Your task to perform on an android device: turn off improve location accuracy Image 0: 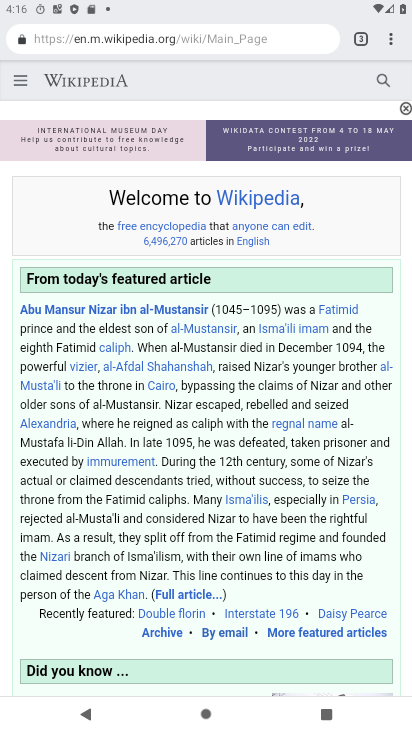
Step 0: press home button
Your task to perform on an android device: turn off improve location accuracy Image 1: 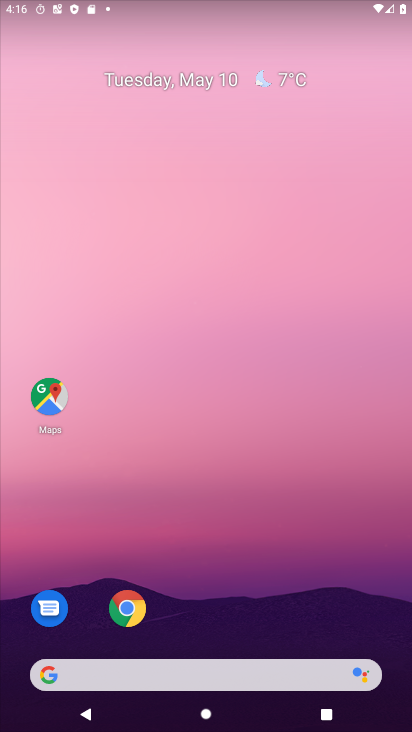
Step 1: drag from (303, 581) to (318, 7)
Your task to perform on an android device: turn off improve location accuracy Image 2: 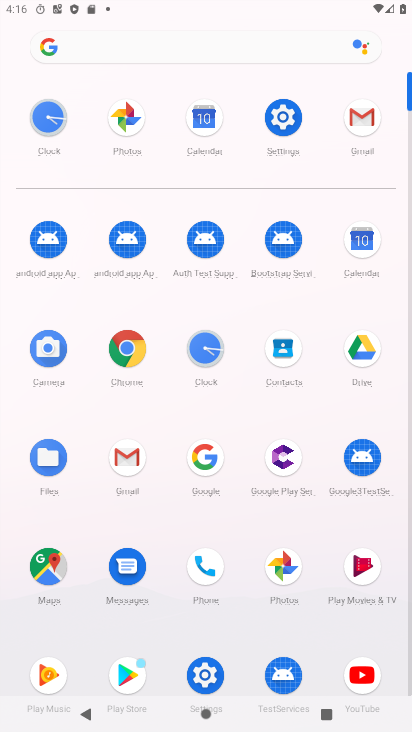
Step 2: click (280, 122)
Your task to perform on an android device: turn off improve location accuracy Image 3: 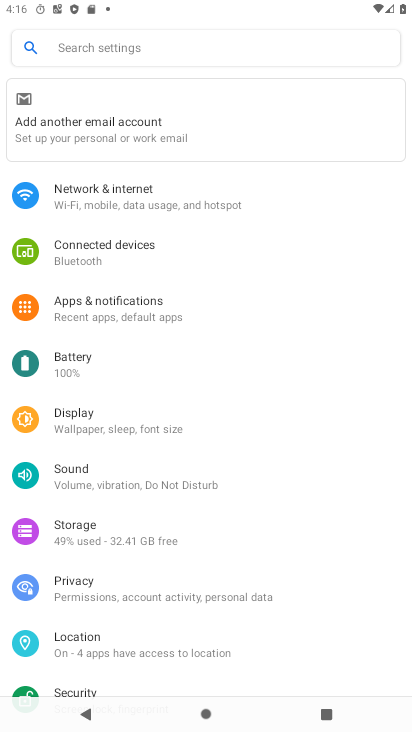
Step 3: click (66, 641)
Your task to perform on an android device: turn off improve location accuracy Image 4: 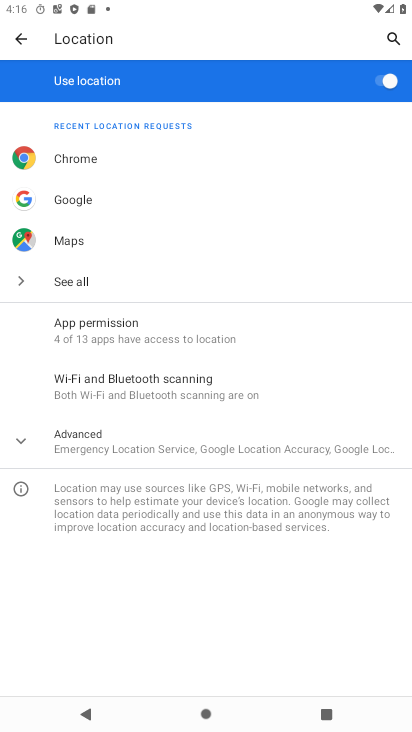
Step 4: click (29, 443)
Your task to perform on an android device: turn off improve location accuracy Image 5: 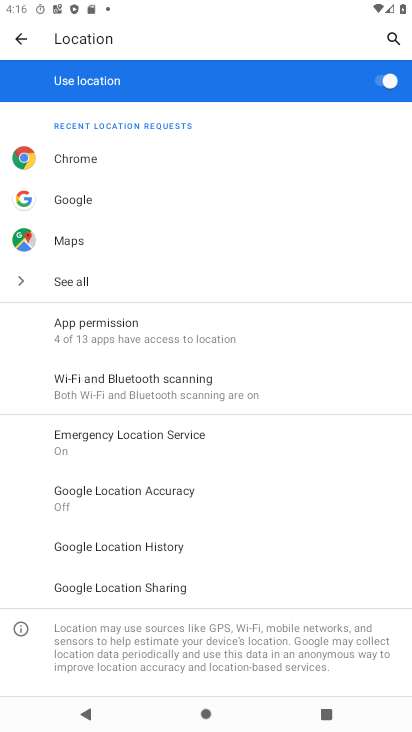
Step 5: click (111, 484)
Your task to perform on an android device: turn off improve location accuracy Image 6: 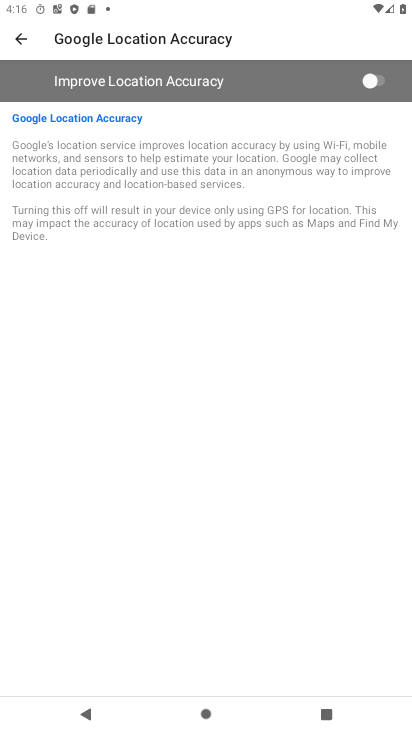
Step 6: task complete